Your task to perform on an android device: see creations saved in the google photos Image 0: 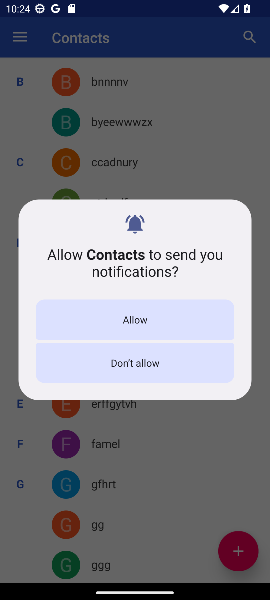
Step 0: press home button
Your task to perform on an android device: see creations saved in the google photos Image 1: 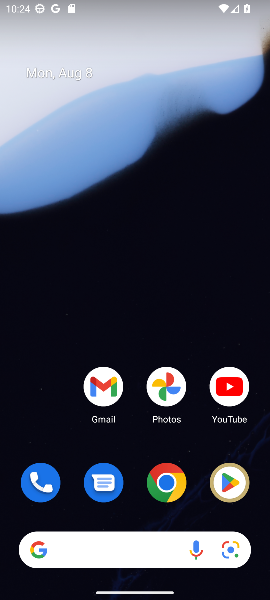
Step 1: click (169, 389)
Your task to perform on an android device: see creations saved in the google photos Image 2: 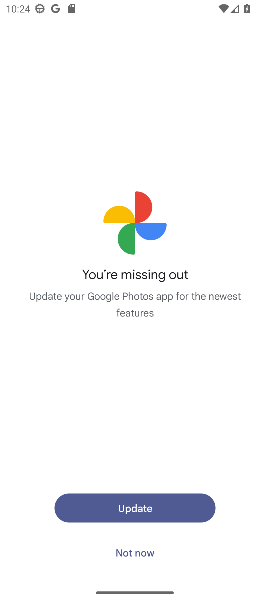
Step 2: click (154, 510)
Your task to perform on an android device: see creations saved in the google photos Image 3: 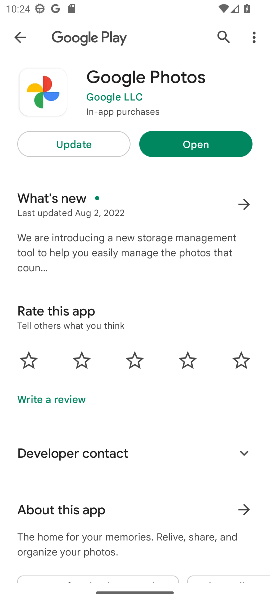
Step 3: click (93, 140)
Your task to perform on an android device: see creations saved in the google photos Image 4: 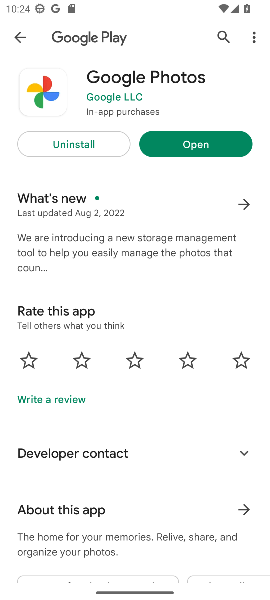
Step 4: click (209, 141)
Your task to perform on an android device: see creations saved in the google photos Image 5: 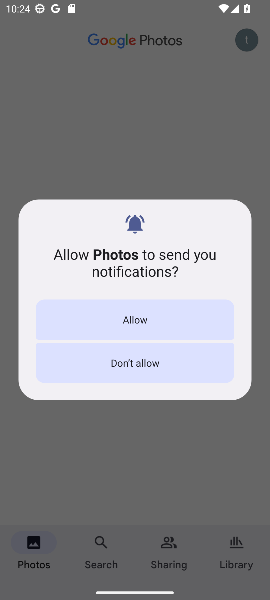
Step 5: click (160, 312)
Your task to perform on an android device: see creations saved in the google photos Image 6: 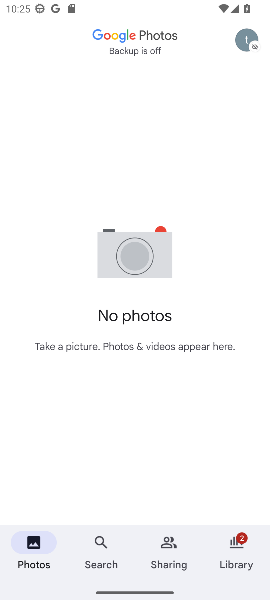
Step 6: click (94, 560)
Your task to perform on an android device: see creations saved in the google photos Image 7: 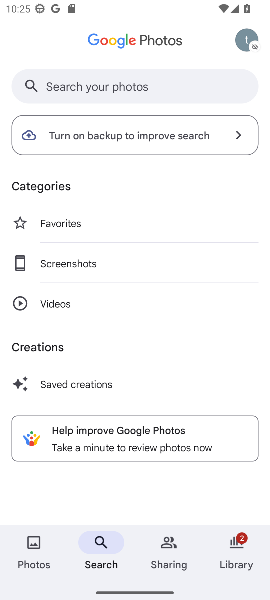
Step 7: click (107, 386)
Your task to perform on an android device: see creations saved in the google photos Image 8: 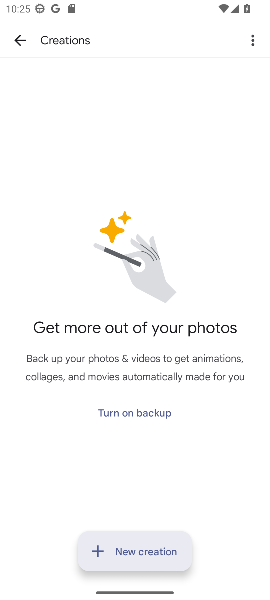
Step 8: task complete